Your task to perform on an android device: Open Maps and search for coffee Image 0: 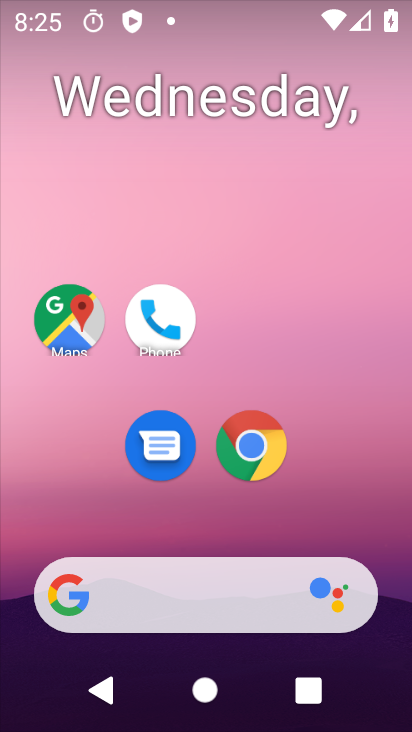
Step 0: click (66, 322)
Your task to perform on an android device: Open Maps and search for coffee Image 1: 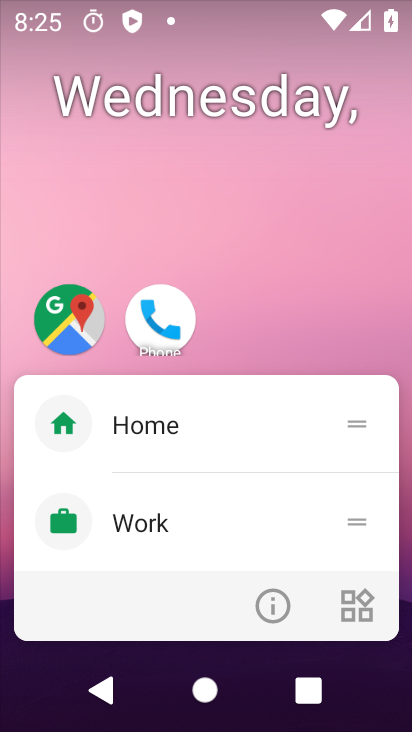
Step 1: click (137, 436)
Your task to perform on an android device: Open Maps and search for coffee Image 2: 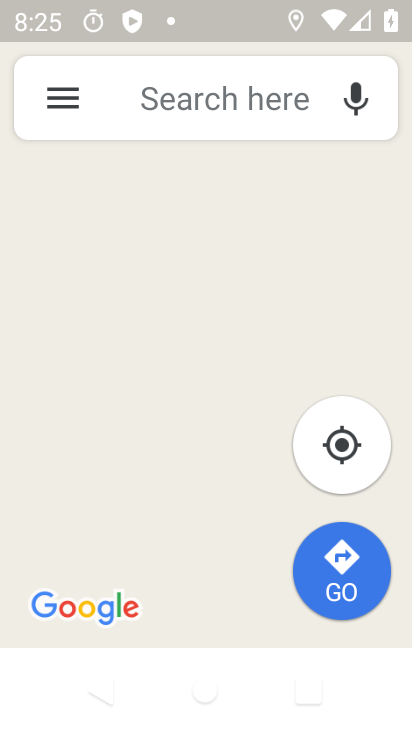
Step 2: click (227, 109)
Your task to perform on an android device: Open Maps and search for coffee Image 3: 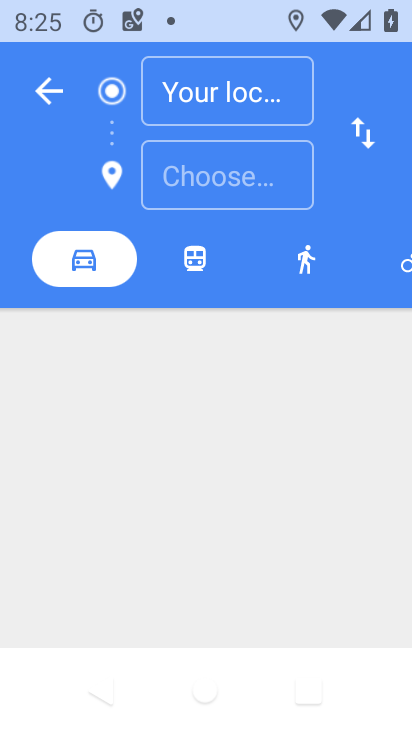
Step 3: click (251, 187)
Your task to perform on an android device: Open Maps and search for coffee Image 4: 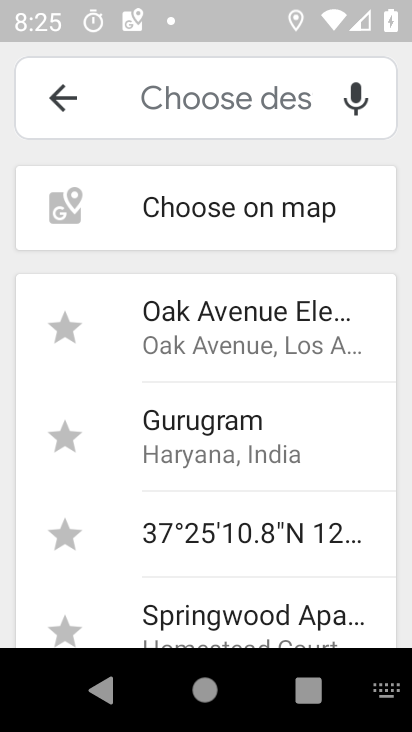
Step 4: type "coffee"
Your task to perform on an android device: Open Maps and search for coffee Image 5: 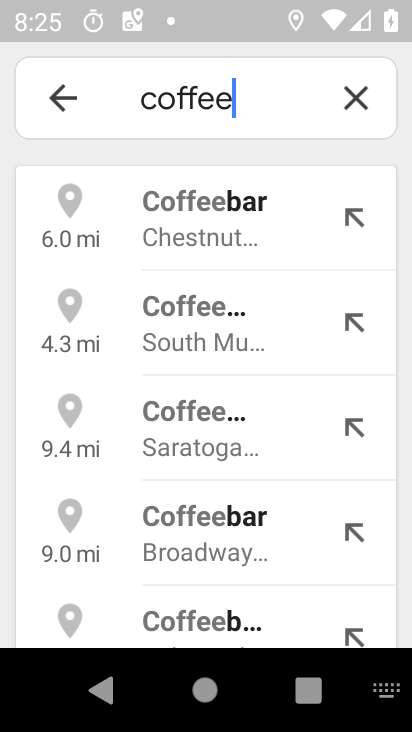
Step 5: click (51, 113)
Your task to perform on an android device: Open Maps and search for coffee Image 6: 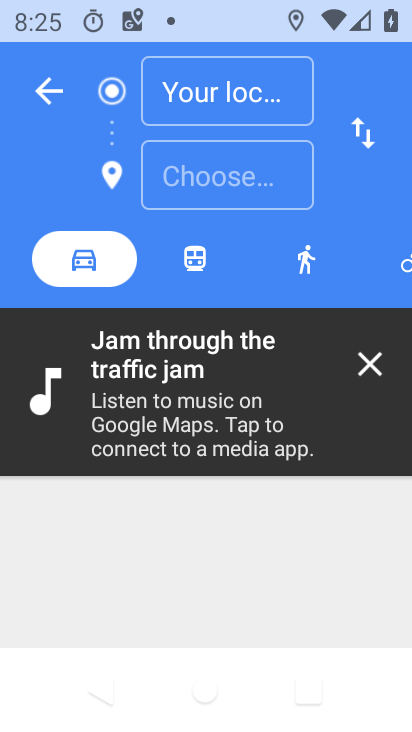
Step 6: click (62, 101)
Your task to perform on an android device: Open Maps and search for coffee Image 7: 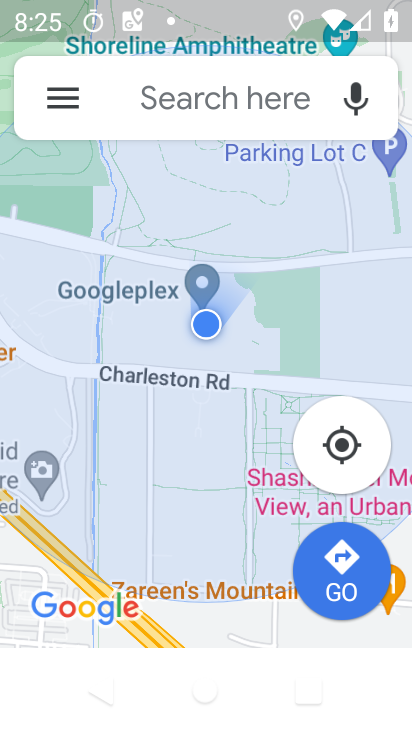
Step 7: click (249, 94)
Your task to perform on an android device: Open Maps and search for coffee Image 8: 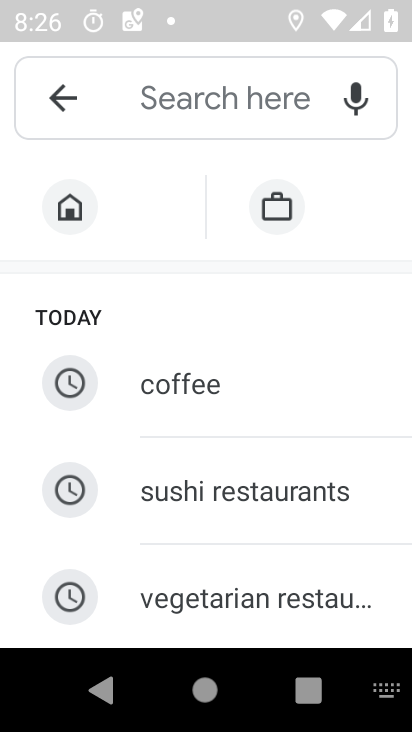
Step 8: click (171, 394)
Your task to perform on an android device: Open Maps and search for coffee Image 9: 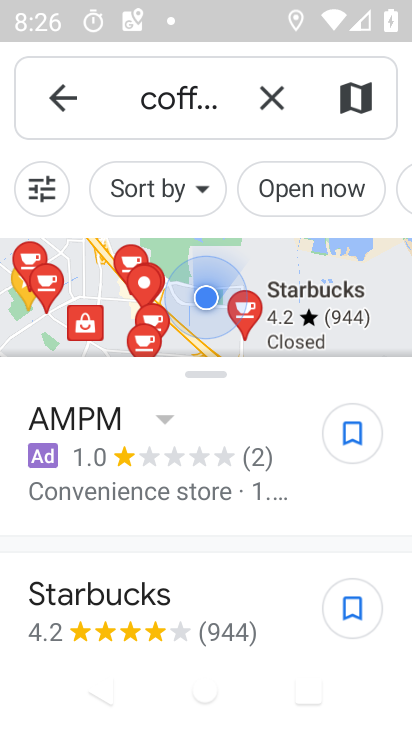
Step 9: task complete